Your task to perform on an android device: star an email in the gmail app Image 0: 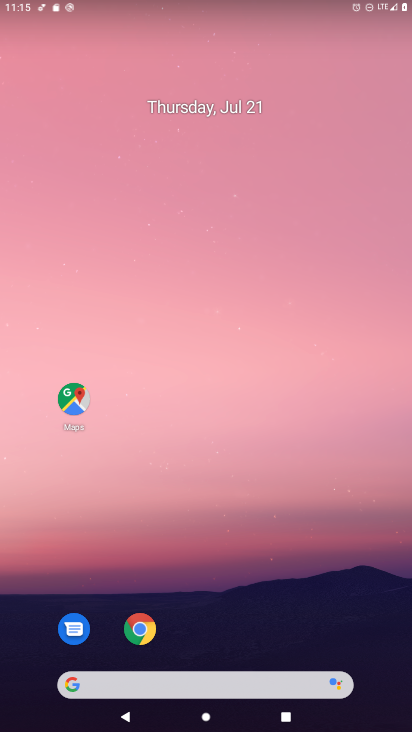
Step 0: press home button
Your task to perform on an android device: star an email in the gmail app Image 1: 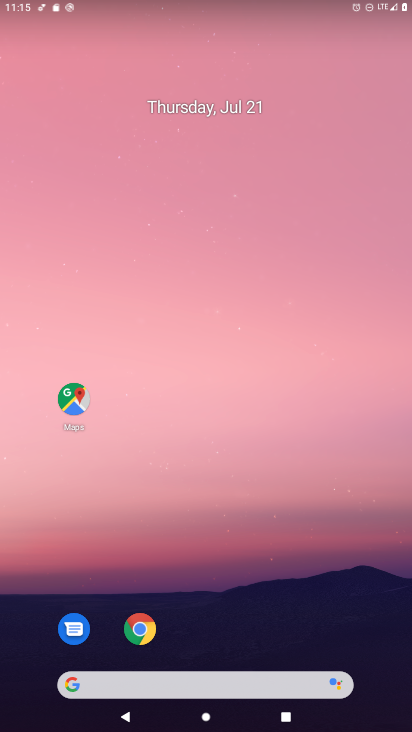
Step 1: drag from (203, 633) to (174, 188)
Your task to perform on an android device: star an email in the gmail app Image 2: 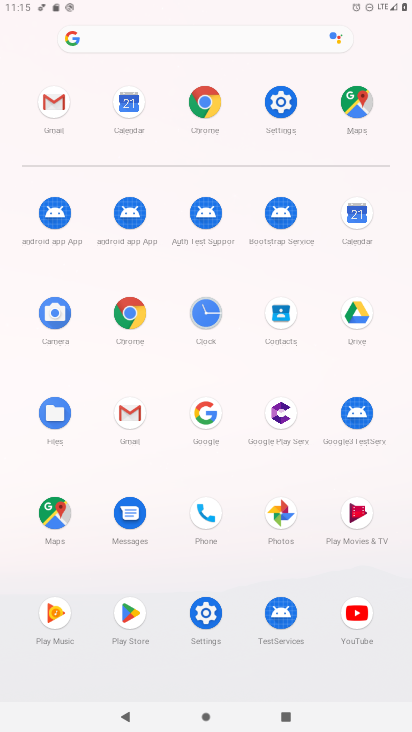
Step 2: click (52, 100)
Your task to perform on an android device: star an email in the gmail app Image 3: 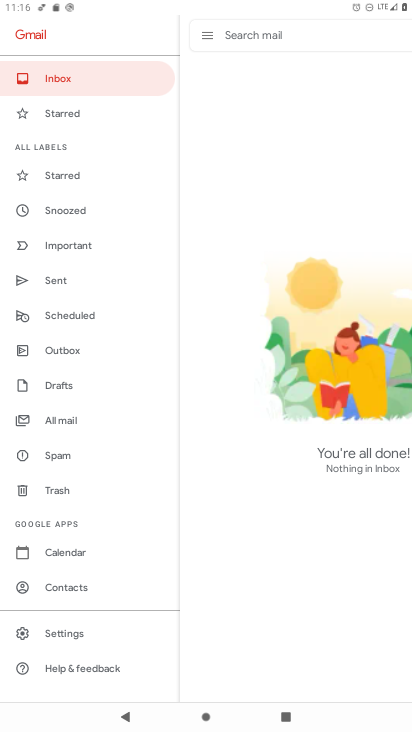
Step 3: task complete